Your task to perform on an android device: toggle javascript in the chrome app Image 0: 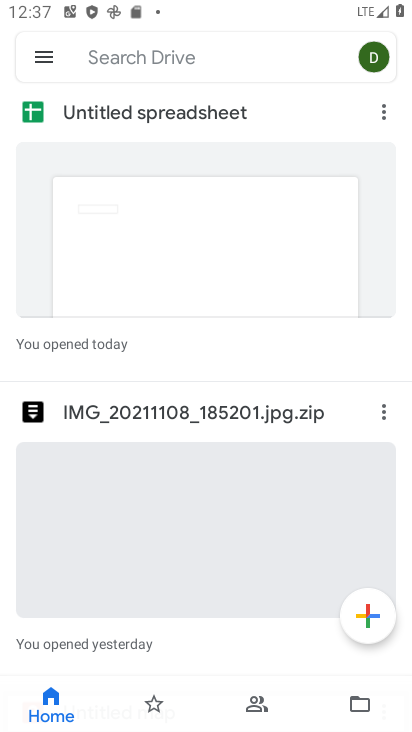
Step 0: press home button
Your task to perform on an android device: toggle javascript in the chrome app Image 1: 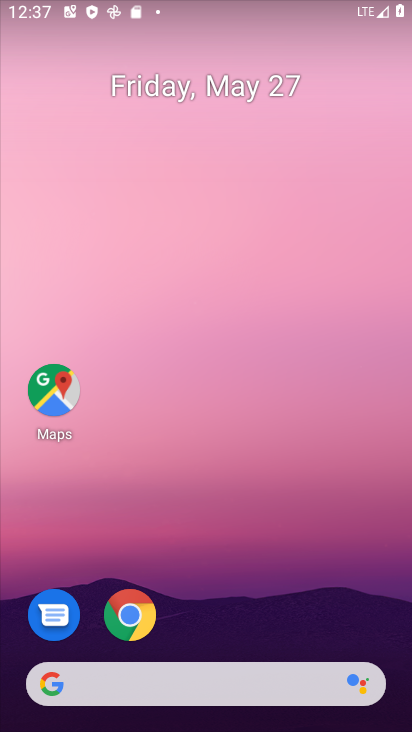
Step 1: drag from (233, 602) to (276, 119)
Your task to perform on an android device: toggle javascript in the chrome app Image 2: 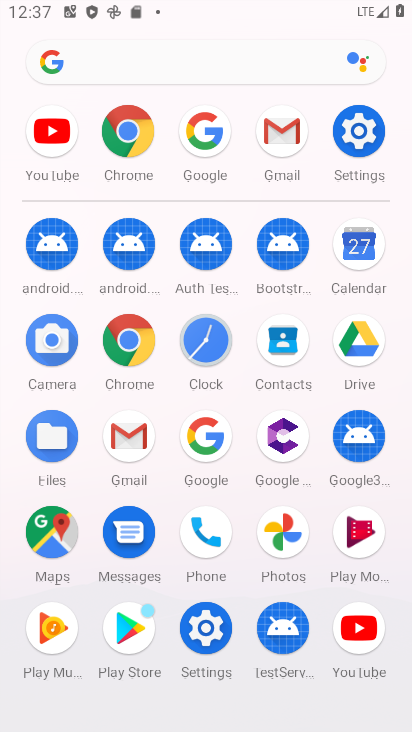
Step 2: click (131, 350)
Your task to perform on an android device: toggle javascript in the chrome app Image 3: 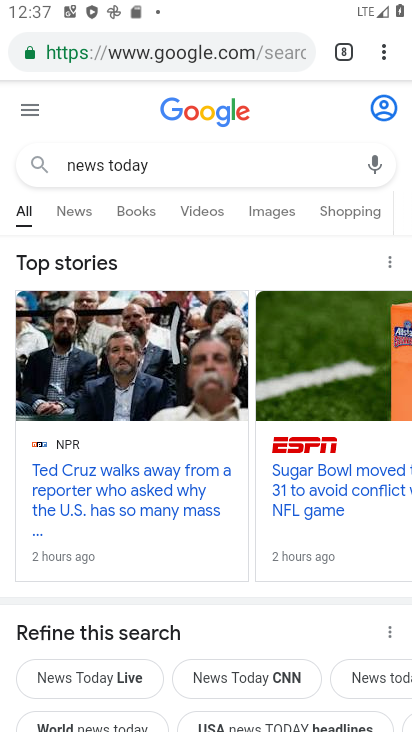
Step 3: drag from (386, 53) to (240, 584)
Your task to perform on an android device: toggle javascript in the chrome app Image 4: 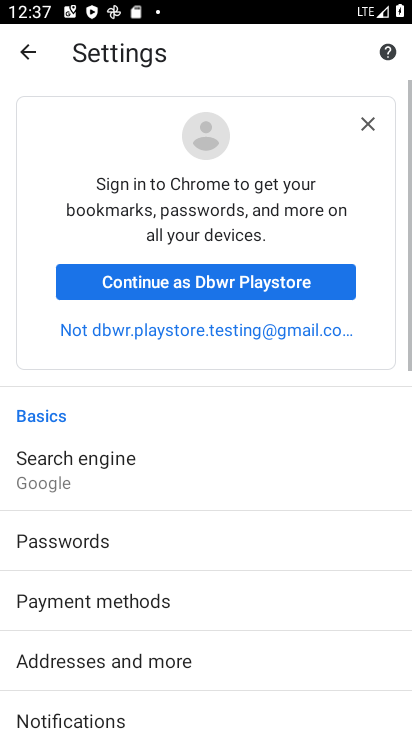
Step 4: drag from (158, 558) to (135, 83)
Your task to perform on an android device: toggle javascript in the chrome app Image 5: 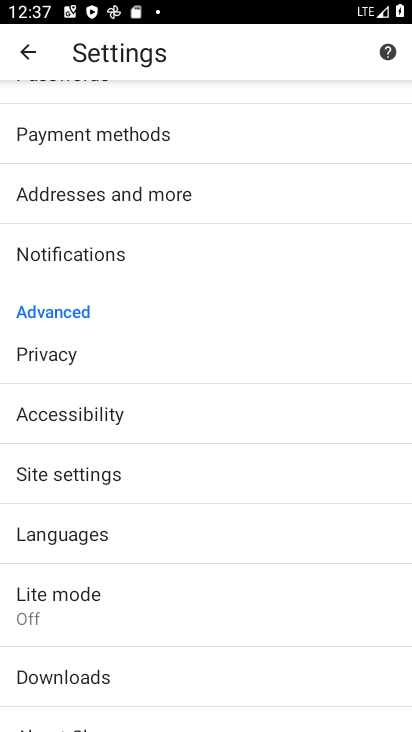
Step 5: click (78, 469)
Your task to perform on an android device: toggle javascript in the chrome app Image 6: 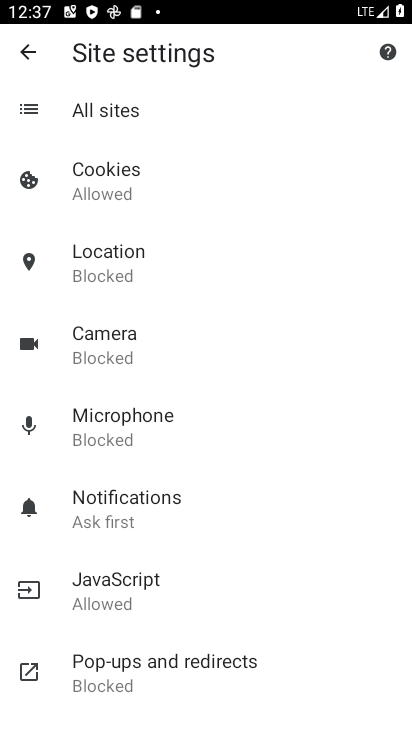
Step 6: click (124, 586)
Your task to perform on an android device: toggle javascript in the chrome app Image 7: 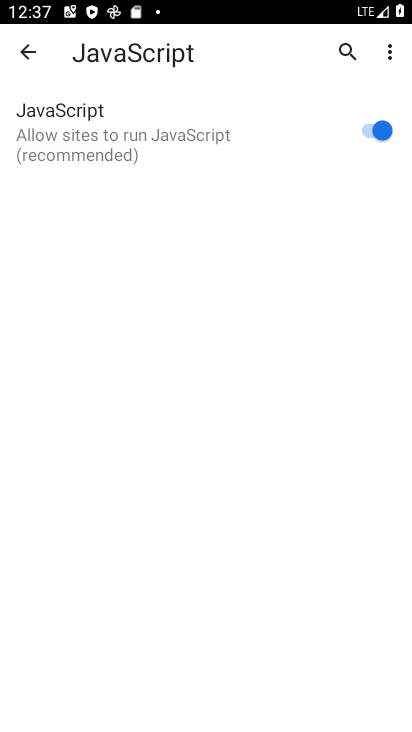
Step 7: click (380, 130)
Your task to perform on an android device: toggle javascript in the chrome app Image 8: 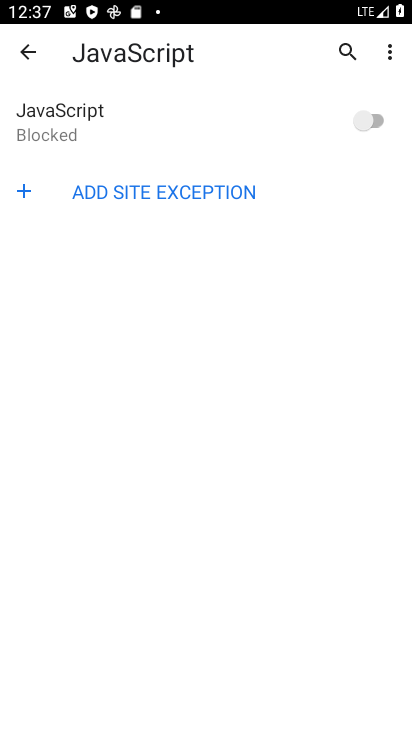
Step 8: task complete